Your task to perform on an android device: clear history in the chrome app Image 0: 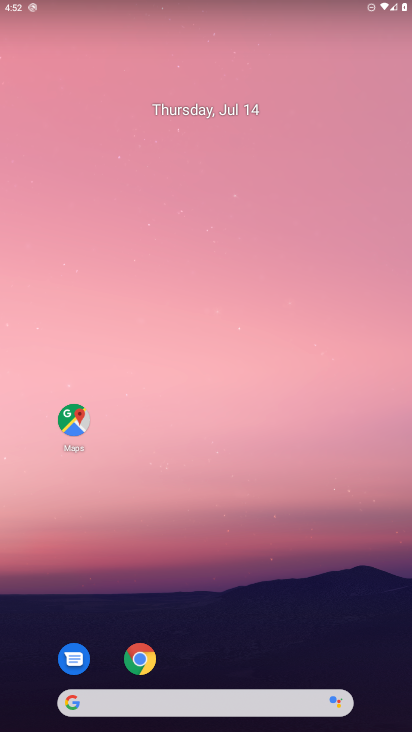
Step 0: press home button
Your task to perform on an android device: clear history in the chrome app Image 1: 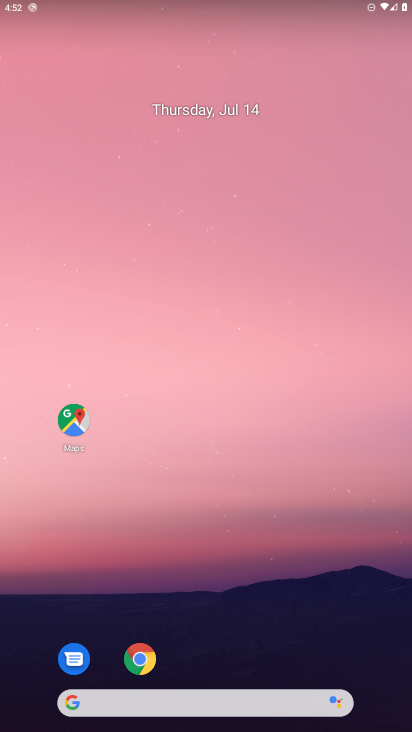
Step 1: click (135, 654)
Your task to perform on an android device: clear history in the chrome app Image 2: 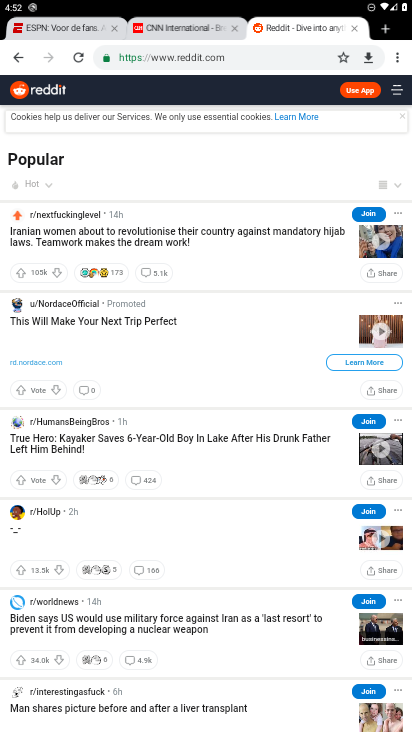
Step 2: click (393, 51)
Your task to perform on an android device: clear history in the chrome app Image 3: 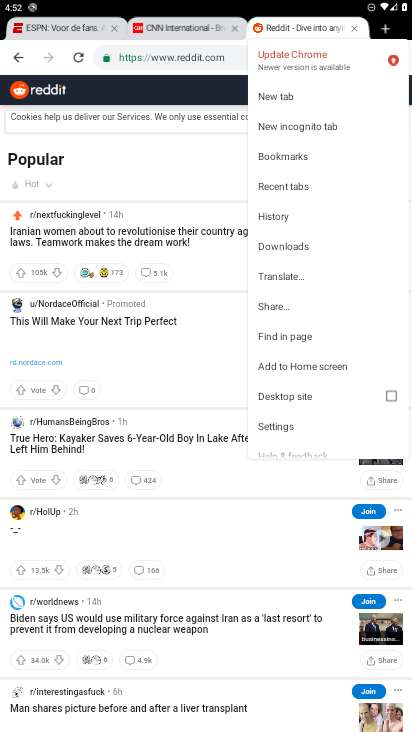
Step 3: click (298, 216)
Your task to perform on an android device: clear history in the chrome app Image 4: 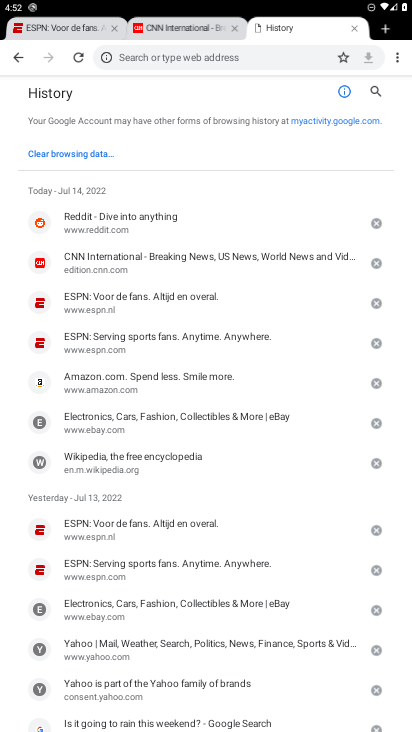
Step 4: click (48, 145)
Your task to perform on an android device: clear history in the chrome app Image 5: 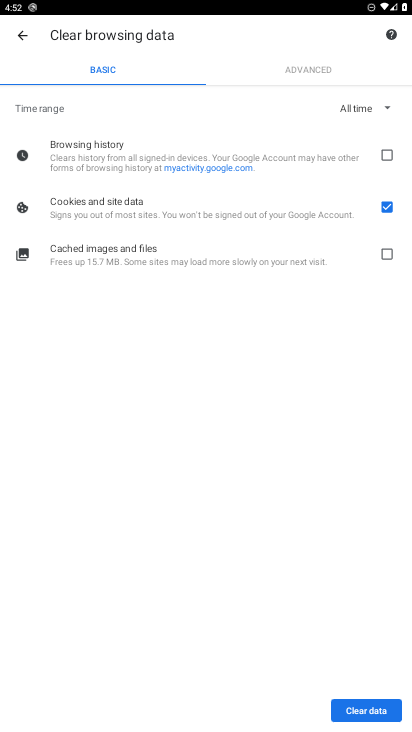
Step 5: click (382, 151)
Your task to perform on an android device: clear history in the chrome app Image 6: 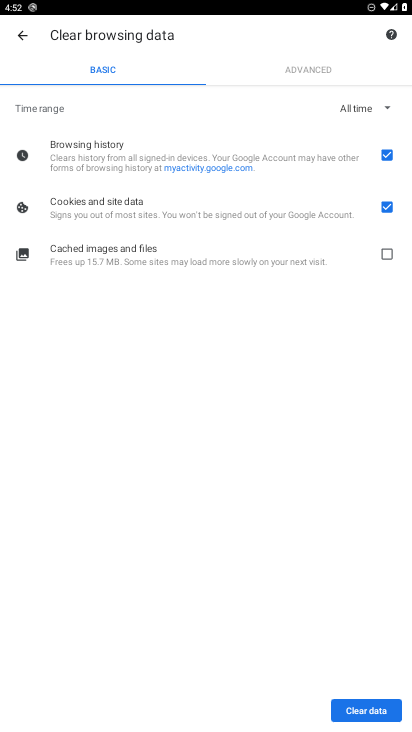
Step 6: click (387, 256)
Your task to perform on an android device: clear history in the chrome app Image 7: 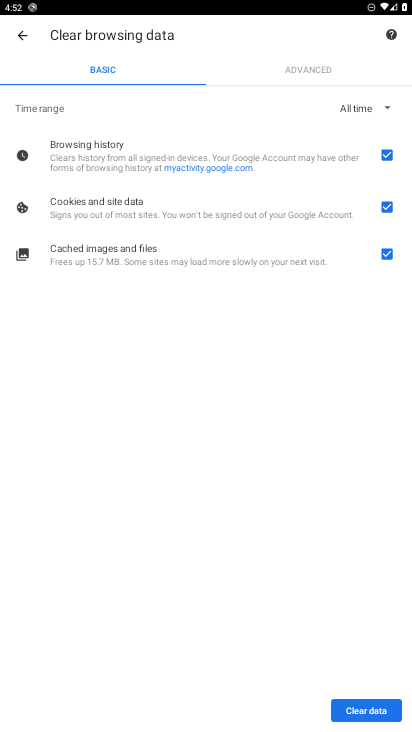
Step 7: click (358, 706)
Your task to perform on an android device: clear history in the chrome app Image 8: 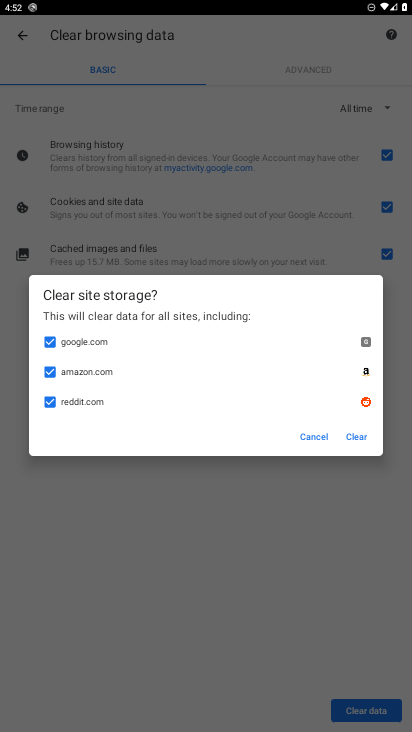
Step 8: click (360, 437)
Your task to perform on an android device: clear history in the chrome app Image 9: 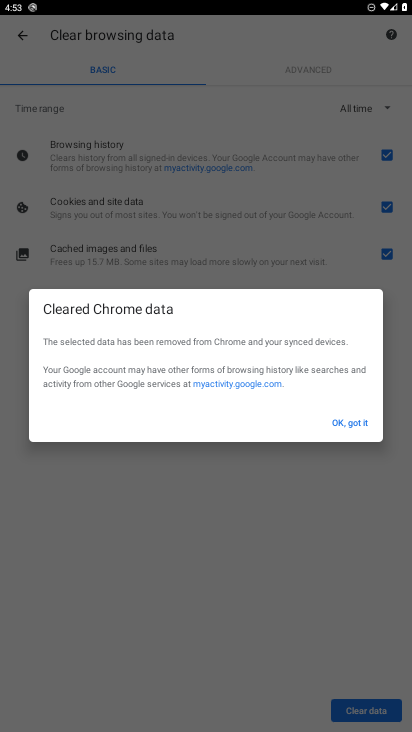
Step 9: click (350, 425)
Your task to perform on an android device: clear history in the chrome app Image 10: 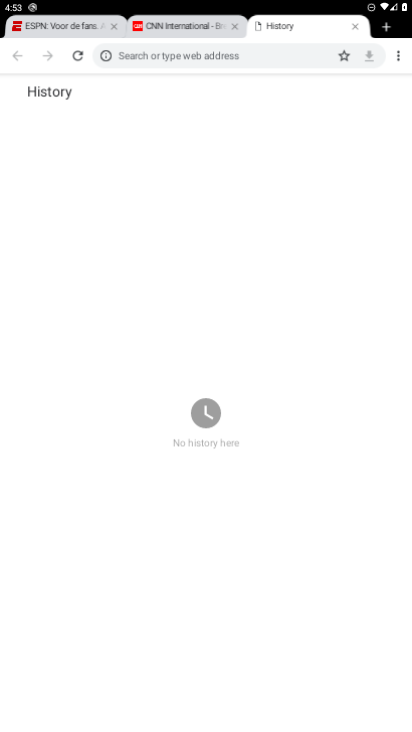
Step 10: task complete